Your task to perform on an android device: Go to internet settings Image 0: 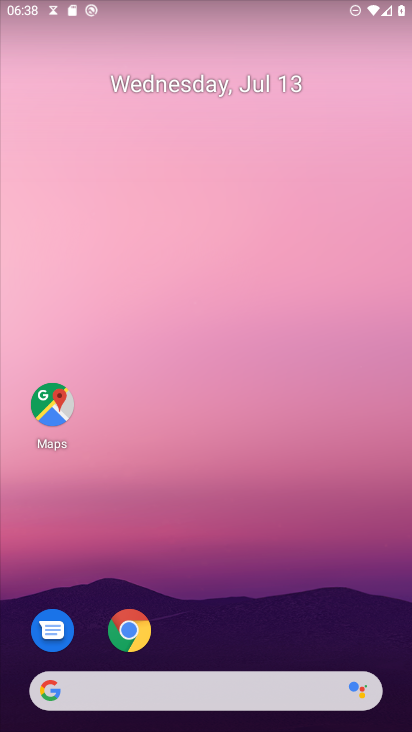
Step 0: drag from (249, 681) to (359, 5)
Your task to perform on an android device: Go to internet settings Image 1: 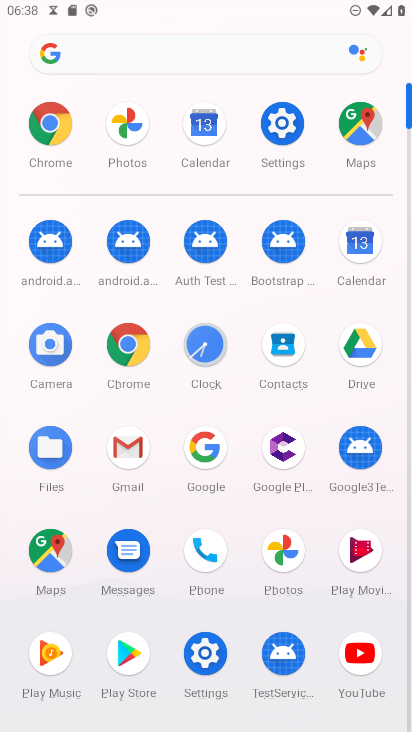
Step 1: click (288, 129)
Your task to perform on an android device: Go to internet settings Image 2: 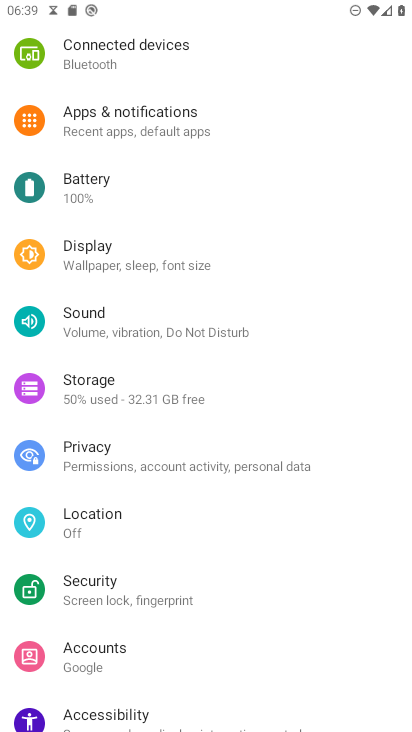
Step 2: drag from (123, 229) to (96, 562)
Your task to perform on an android device: Go to internet settings Image 3: 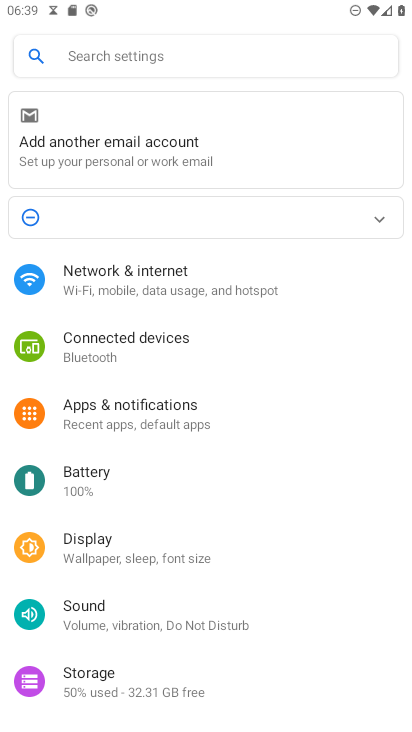
Step 3: click (137, 293)
Your task to perform on an android device: Go to internet settings Image 4: 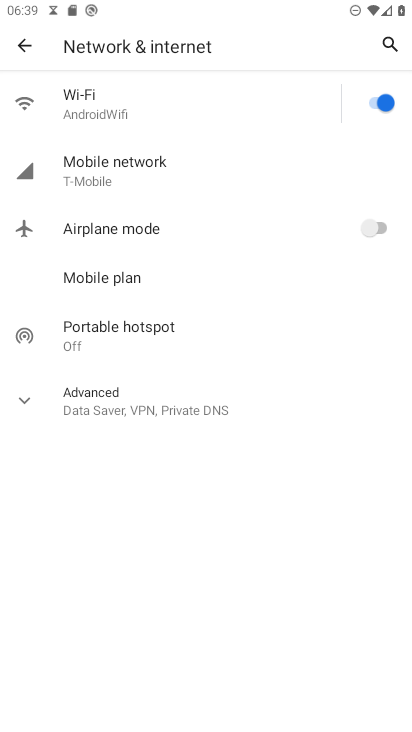
Step 4: task complete